Your task to perform on an android device: turn off notifications settings in the gmail app Image 0: 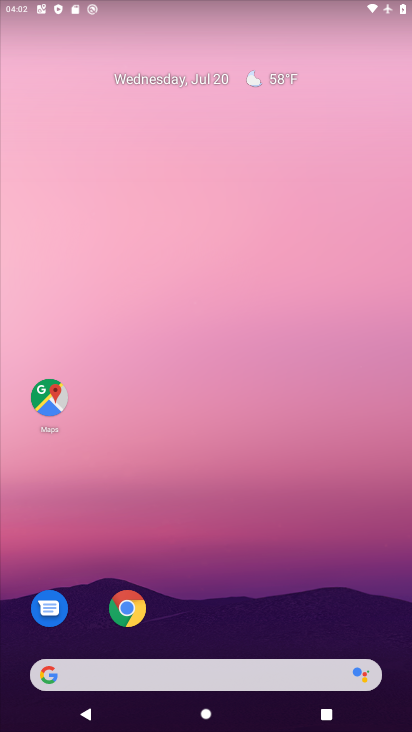
Step 0: drag from (318, 632) to (258, 252)
Your task to perform on an android device: turn off notifications settings in the gmail app Image 1: 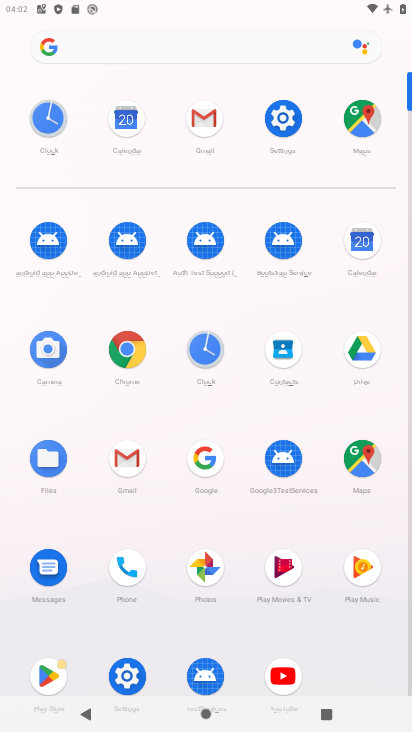
Step 1: click (205, 134)
Your task to perform on an android device: turn off notifications settings in the gmail app Image 2: 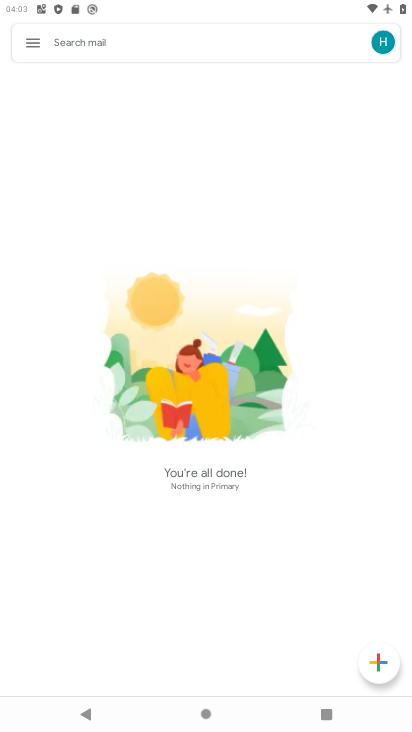
Step 2: task complete